Your task to perform on an android device: turn off javascript in the chrome app Image 0: 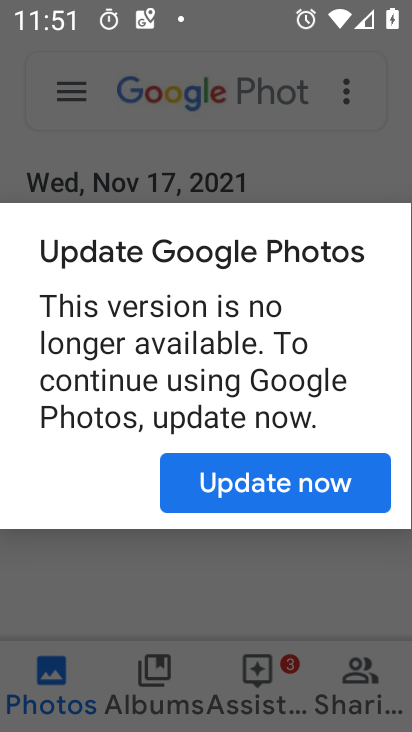
Step 0: press home button
Your task to perform on an android device: turn off javascript in the chrome app Image 1: 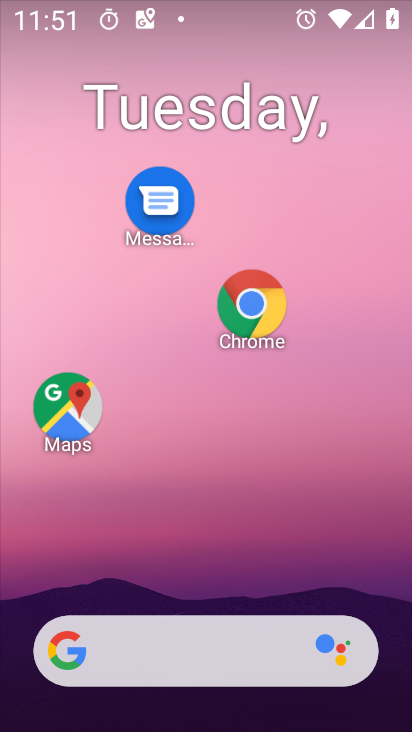
Step 1: drag from (274, 474) to (306, 156)
Your task to perform on an android device: turn off javascript in the chrome app Image 2: 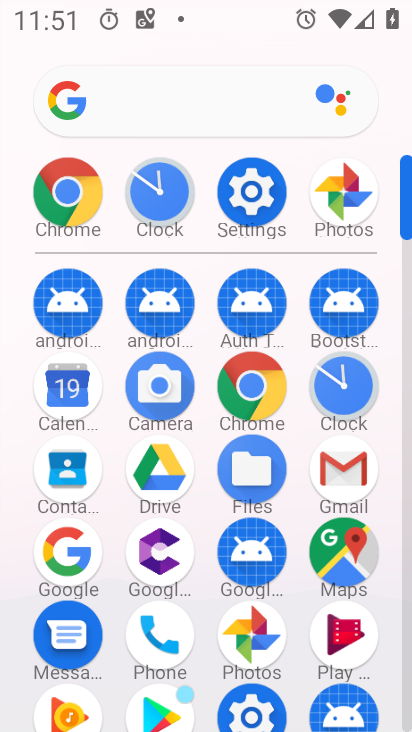
Step 2: click (254, 377)
Your task to perform on an android device: turn off javascript in the chrome app Image 3: 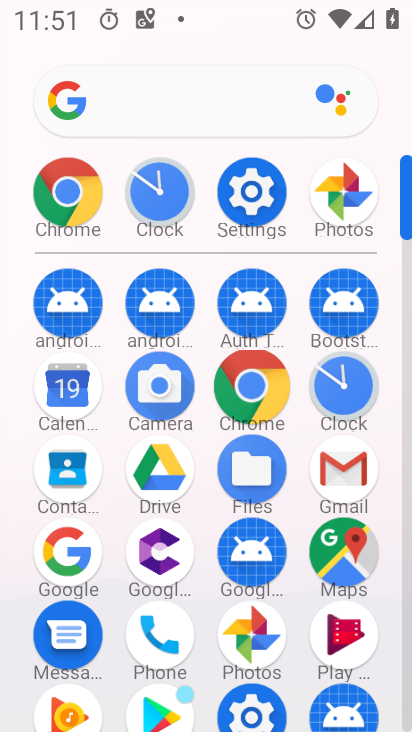
Step 3: click (254, 377)
Your task to perform on an android device: turn off javascript in the chrome app Image 4: 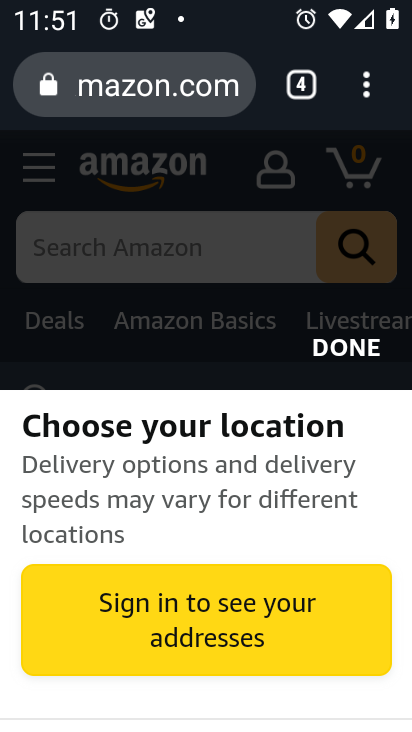
Step 4: click (367, 87)
Your task to perform on an android device: turn off javascript in the chrome app Image 5: 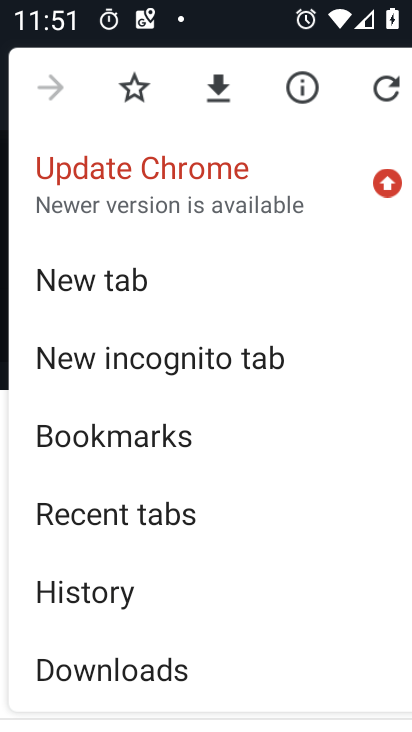
Step 5: drag from (205, 616) to (237, 185)
Your task to perform on an android device: turn off javascript in the chrome app Image 6: 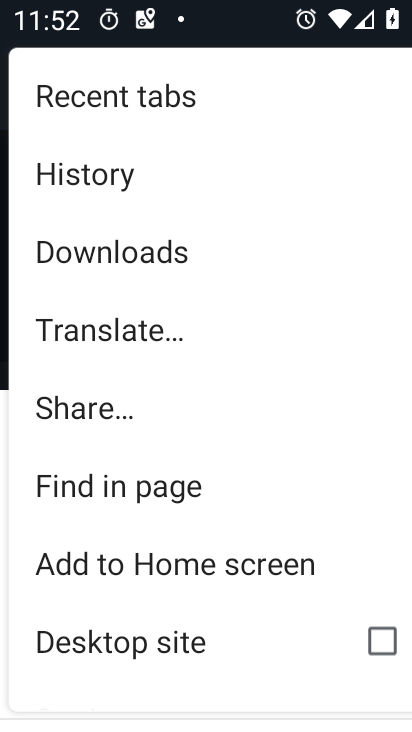
Step 6: drag from (188, 567) to (264, 218)
Your task to perform on an android device: turn off javascript in the chrome app Image 7: 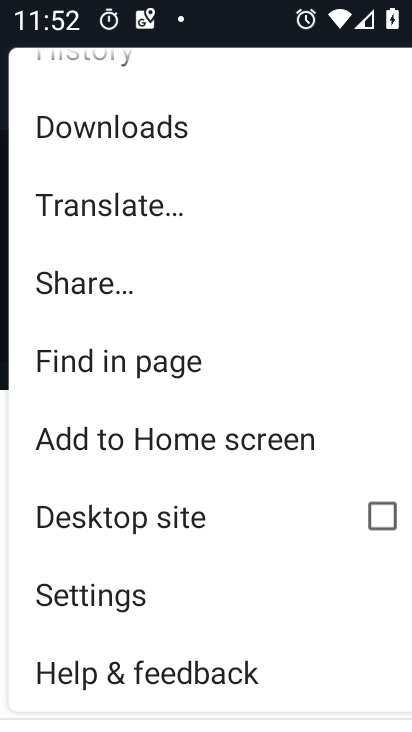
Step 7: click (131, 589)
Your task to perform on an android device: turn off javascript in the chrome app Image 8: 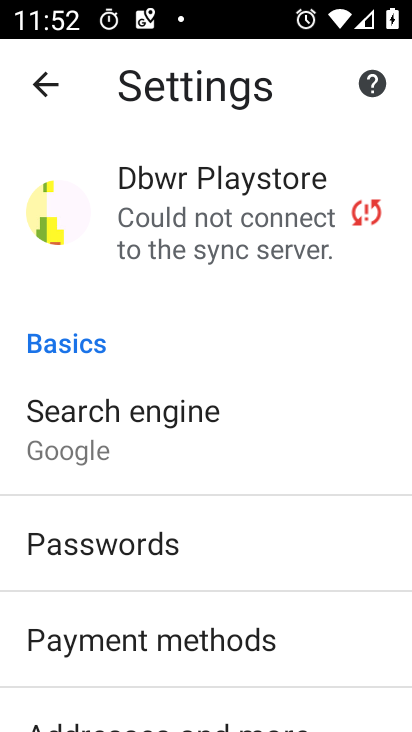
Step 8: drag from (190, 647) to (238, 158)
Your task to perform on an android device: turn off javascript in the chrome app Image 9: 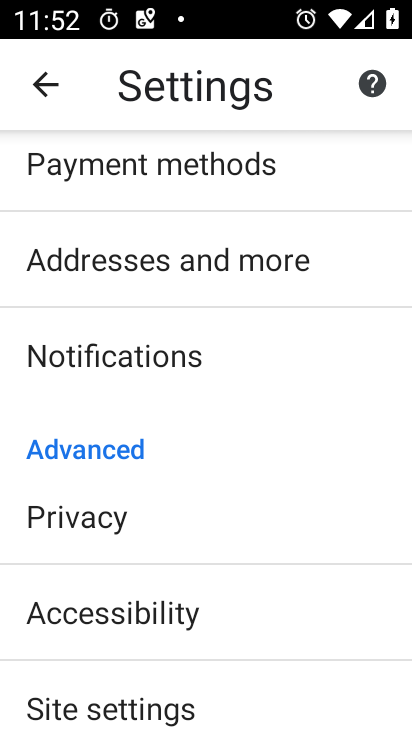
Step 9: drag from (178, 615) to (259, 260)
Your task to perform on an android device: turn off javascript in the chrome app Image 10: 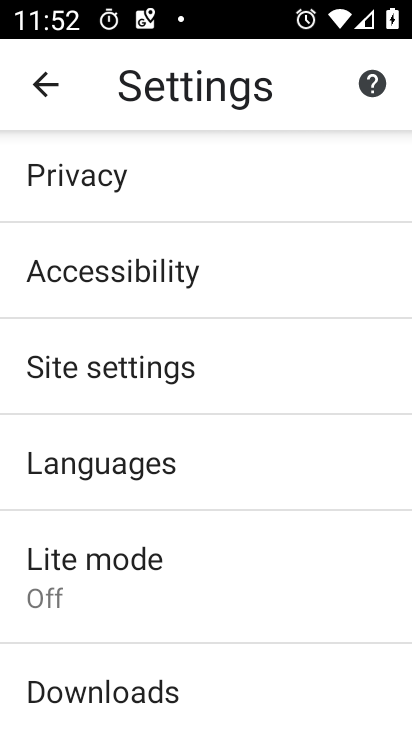
Step 10: click (267, 370)
Your task to perform on an android device: turn off javascript in the chrome app Image 11: 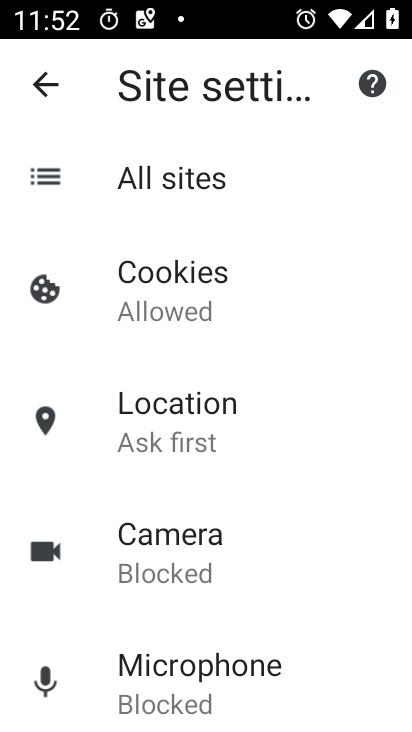
Step 11: drag from (188, 652) to (288, 181)
Your task to perform on an android device: turn off javascript in the chrome app Image 12: 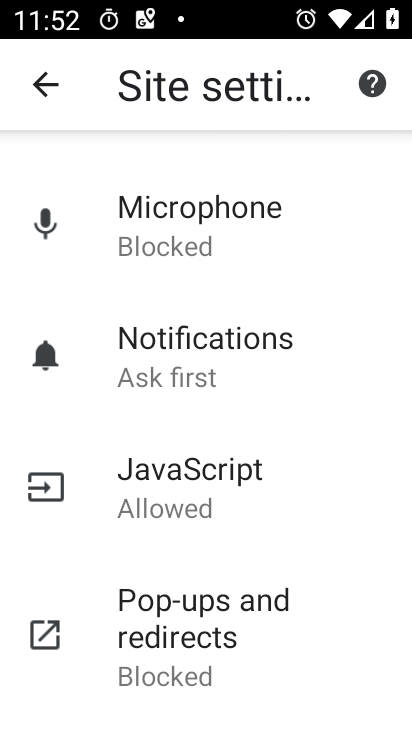
Step 12: click (188, 503)
Your task to perform on an android device: turn off javascript in the chrome app Image 13: 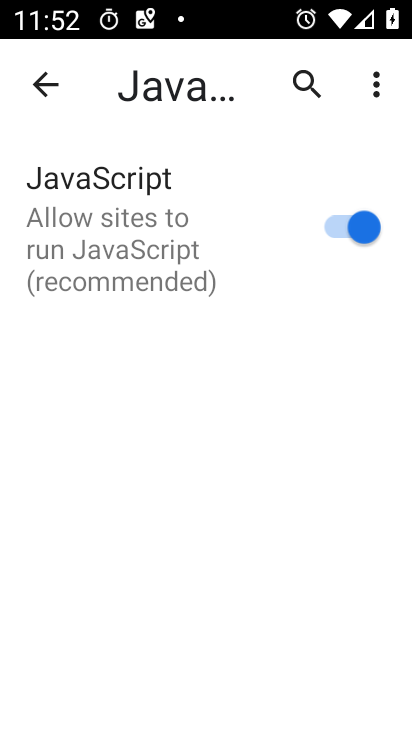
Step 13: click (344, 210)
Your task to perform on an android device: turn off javascript in the chrome app Image 14: 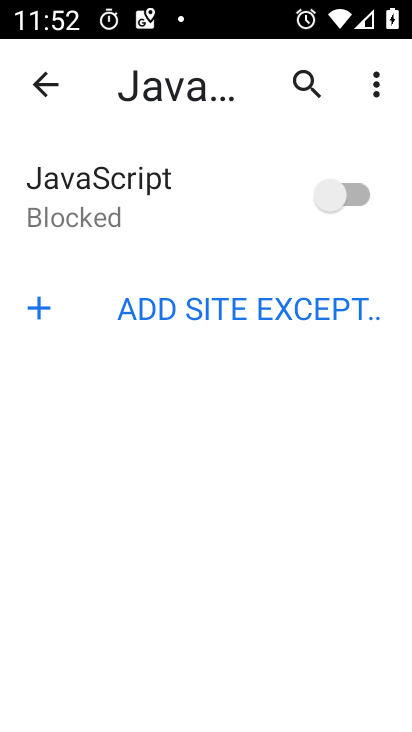
Step 14: task complete